Your task to perform on an android device: Show the shopping cart on walmart.com. Add alienware aurora to the cart on walmart.com Image 0: 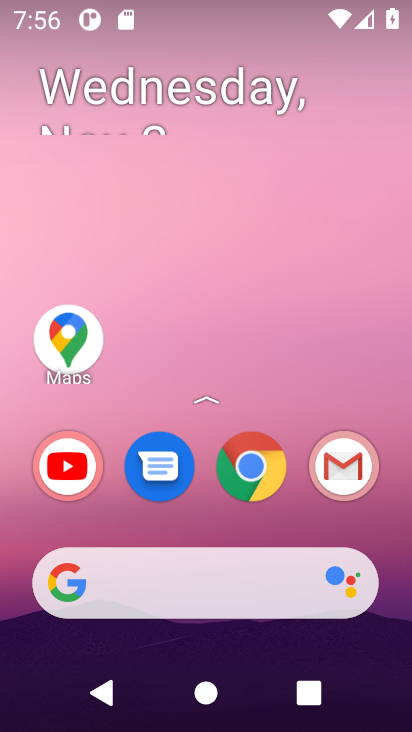
Step 0: click (138, 564)
Your task to perform on an android device: Show the shopping cart on walmart.com. Add alienware aurora to the cart on walmart.com Image 1: 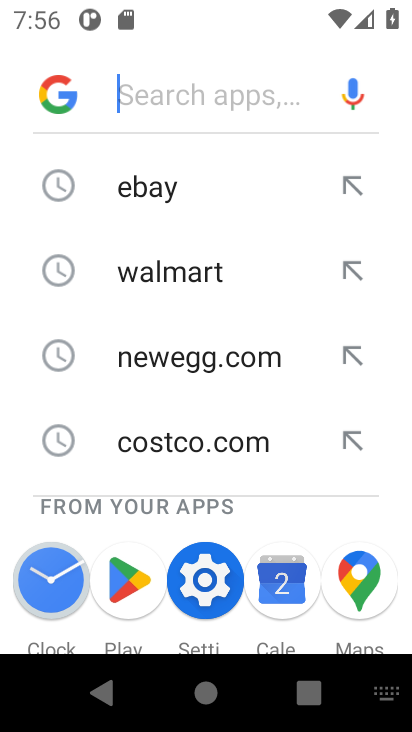
Step 1: click (167, 282)
Your task to perform on an android device: Show the shopping cart on walmart.com. Add alienware aurora to the cart on walmart.com Image 2: 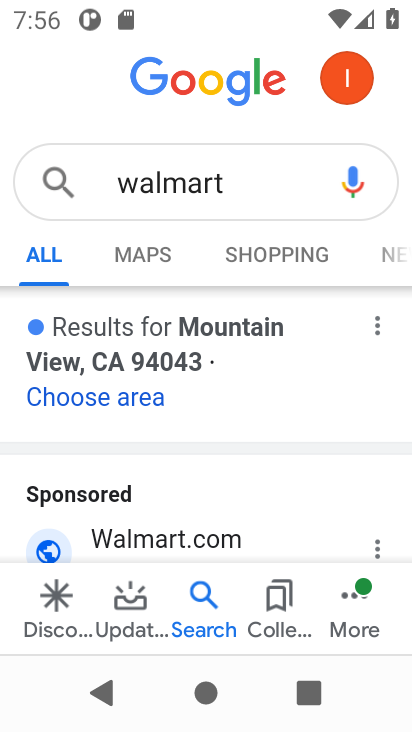
Step 2: drag from (185, 484) to (216, 312)
Your task to perform on an android device: Show the shopping cart on walmart.com. Add alienware aurora to the cart on walmart.com Image 3: 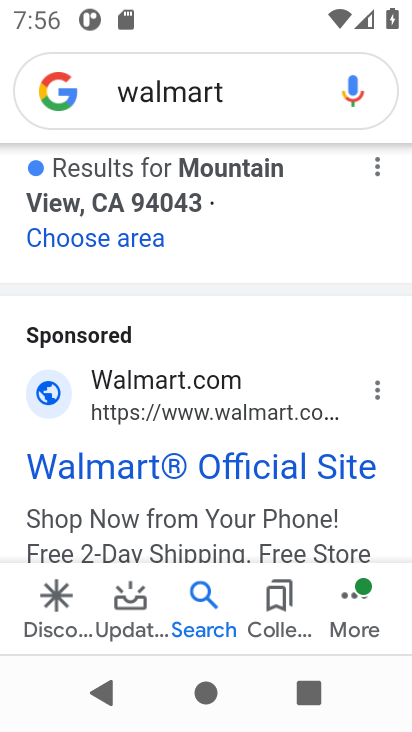
Step 3: click (172, 401)
Your task to perform on an android device: Show the shopping cart on walmart.com. Add alienware aurora to the cart on walmart.com Image 4: 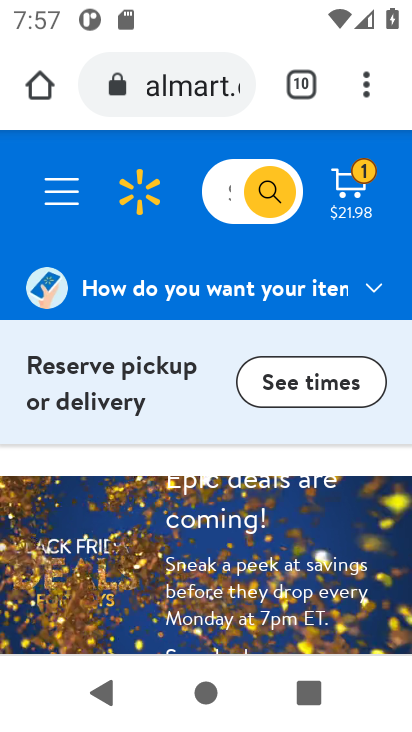
Step 4: click (234, 178)
Your task to perform on an android device: Show the shopping cart on walmart.com. Add alienware aurora to the cart on walmart.com Image 5: 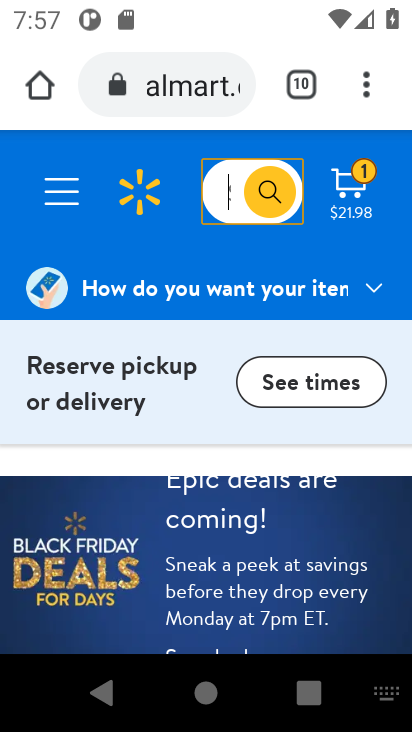
Step 5: type "alienware aurora"
Your task to perform on an android device: Show the shopping cart on walmart.com. Add alienware aurora to the cart on walmart.com Image 6: 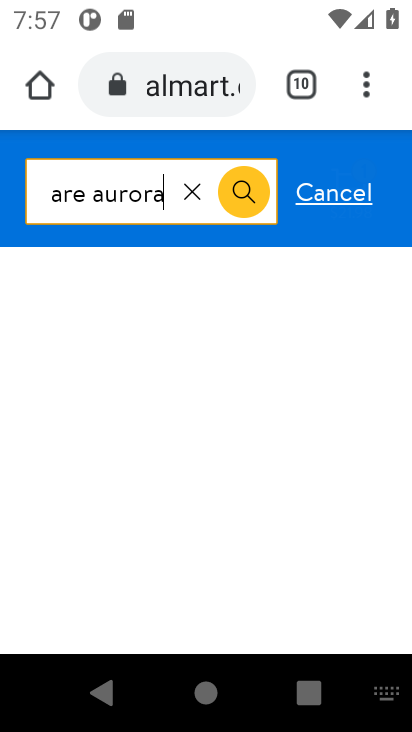
Step 6: type ""
Your task to perform on an android device: Show the shopping cart on walmart.com. Add alienware aurora to the cart on walmart.com Image 7: 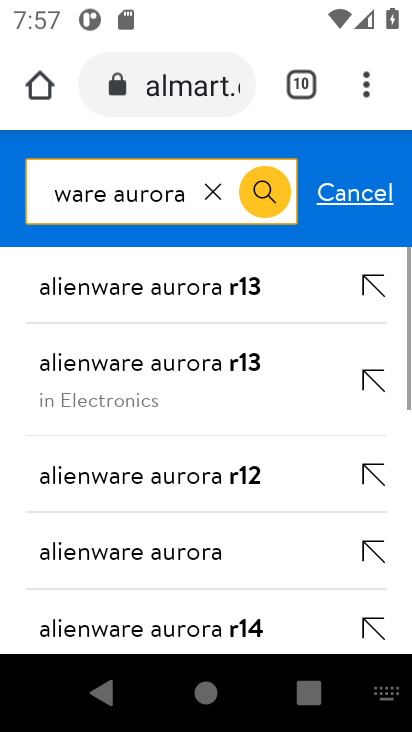
Step 7: click (258, 191)
Your task to perform on an android device: Show the shopping cart on walmart.com. Add alienware aurora to the cart on walmart.com Image 8: 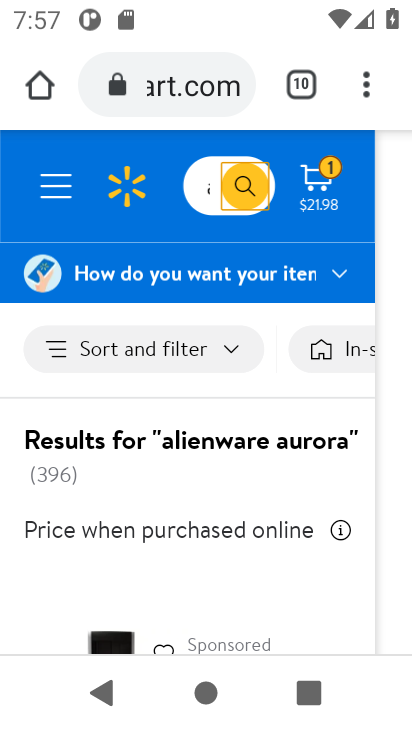
Step 8: drag from (260, 580) to (224, 397)
Your task to perform on an android device: Show the shopping cart on walmart.com. Add alienware aurora to the cart on walmart.com Image 9: 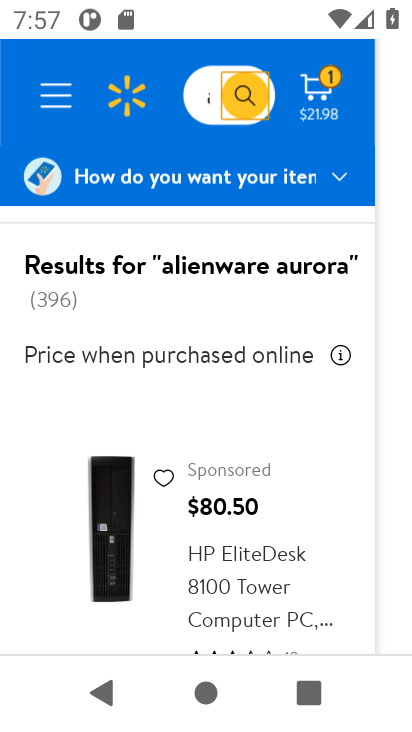
Step 9: drag from (290, 546) to (293, 432)
Your task to perform on an android device: Show the shopping cart on walmart.com. Add alienware aurora to the cart on walmart.com Image 10: 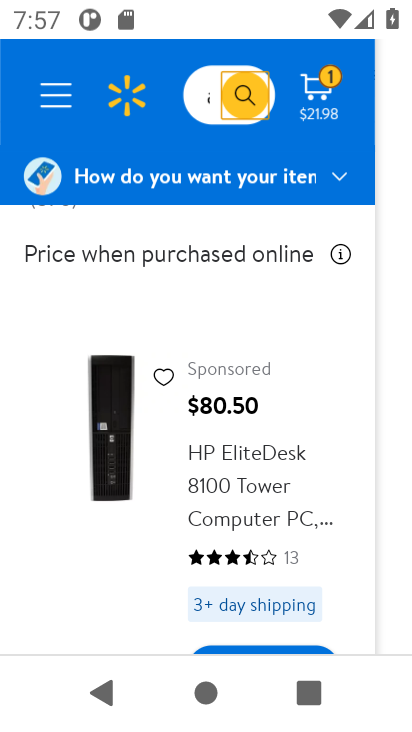
Step 10: drag from (304, 543) to (292, 328)
Your task to perform on an android device: Show the shopping cart on walmart.com. Add alienware aurora to the cart on walmart.com Image 11: 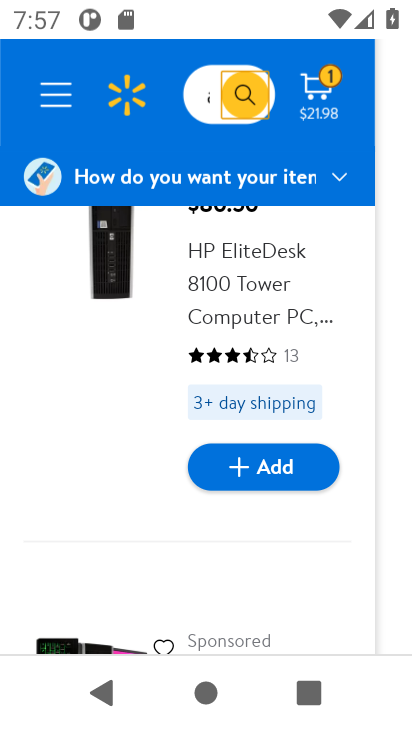
Step 11: drag from (293, 531) to (288, 248)
Your task to perform on an android device: Show the shopping cart on walmart.com. Add alienware aurora to the cart on walmart.com Image 12: 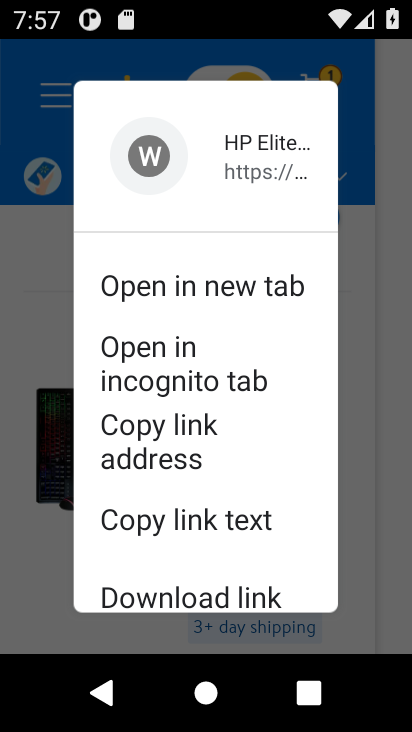
Step 12: click (343, 305)
Your task to perform on an android device: Show the shopping cart on walmart.com. Add alienware aurora to the cart on walmart.com Image 13: 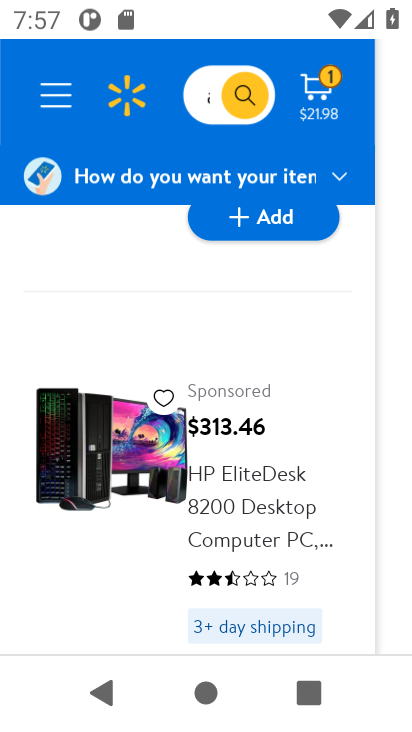
Step 13: drag from (320, 317) to (321, 525)
Your task to perform on an android device: Show the shopping cart on walmart.com. Add alienware aurora to the cart on walmart.com Image 14: 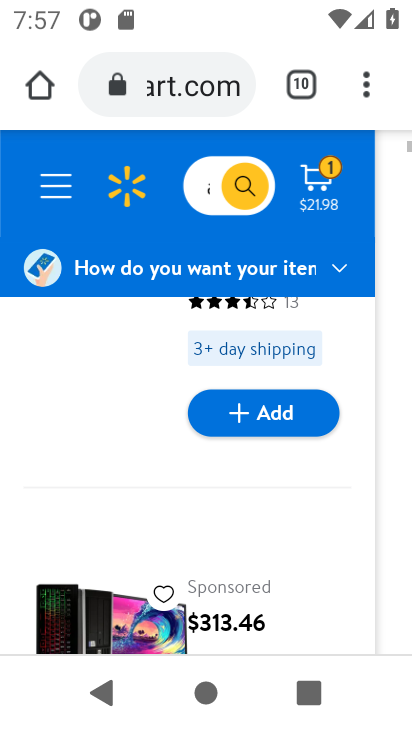
Step 14: drag from (293, 398) to (286, 538)
Your task to perform on an android device: Show the shopping cart on walmart.com. Add alienware aurora to the cart on walmart.com Image 15: 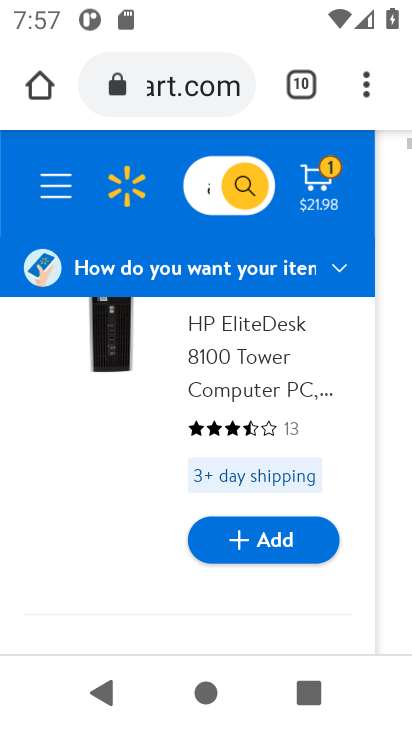
Step 15: drag from (328, 463) to (328, 527)
Your task to perform on an android device: Show the shopping cart on walmart.com. Add alienware aurora to the cart on walmart.com Image 16: 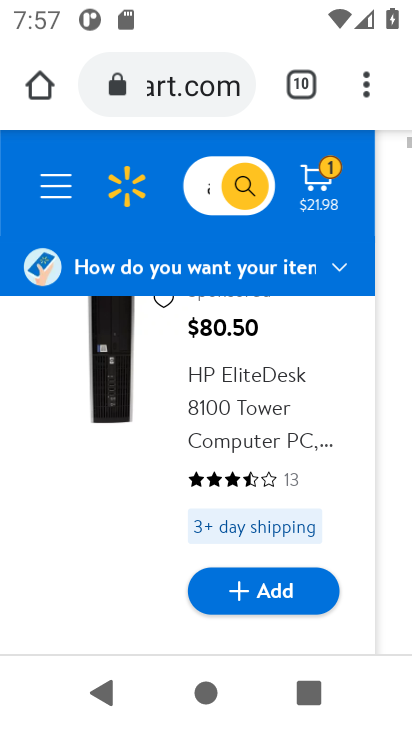
Step 16: drag from (306, 365) to (316, 495)
Your task to perform on an android device: Show the shopping cart on walmart.com. Add alienware aurora to the cart on walmart.com Image 17: 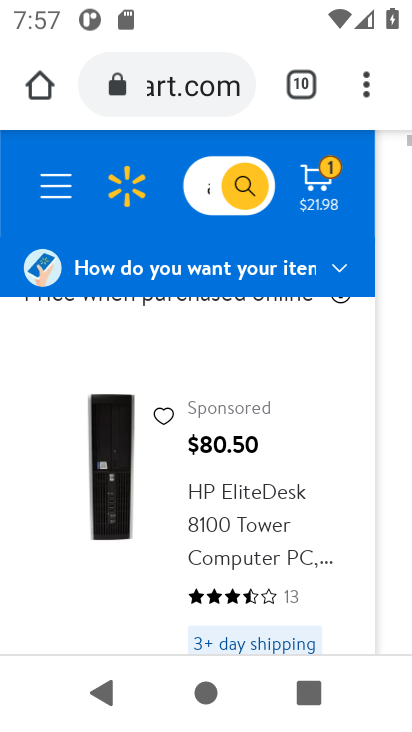
Step 17: drag from (312, 406) to (322, 508)
Your task to perform on an android device: Show the shopping cart on walmart.com. Add alienware aurora to the cart on walmart.com Image 18: 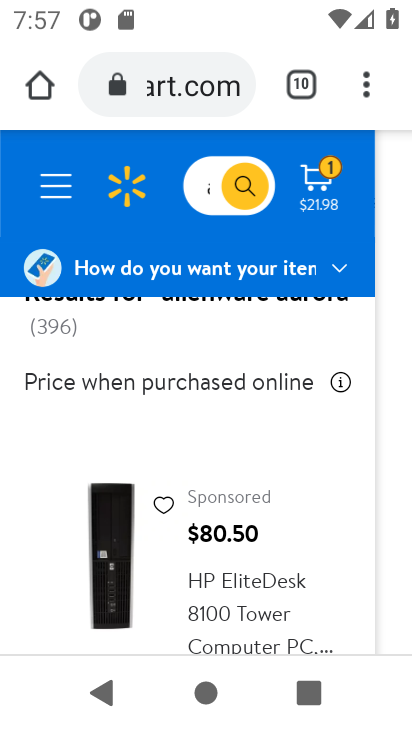
Step 18: click (219, 614)
Your task to perform on an android device: Show the shopping cart on walmart.com. Add alienware aurora to the cart on walmart.com Image 19: 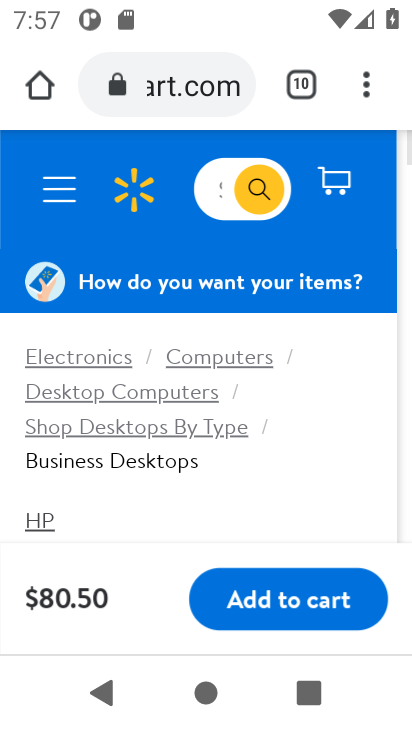
Step 19: click (240, 592)
Your task to perform on an android device: Show the shopping cart on walmart.com. Add alienware aurora to the cart on walmart.com Image 20: 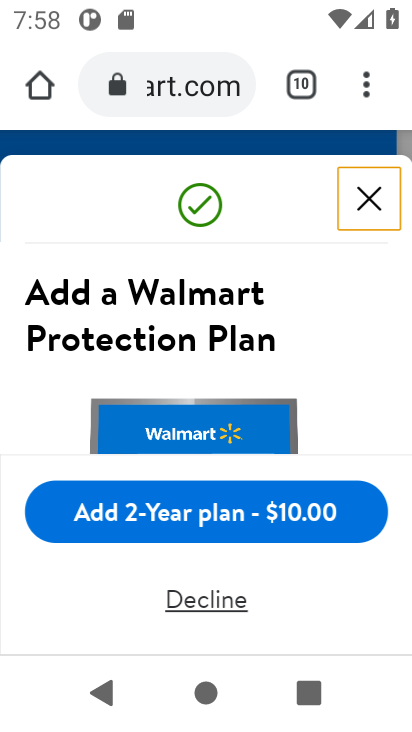
Step 20: task complete